Your task to perform on an android device: make emails show in primary in the gmail app Image 0: 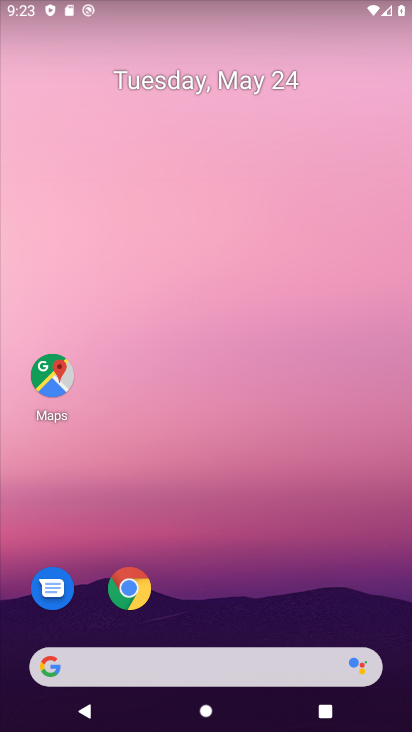
Step 0: drag from (251, 601) to (243, 176)
Your task to perform on an android device: make emails show in primary in the gmail app Image 1: 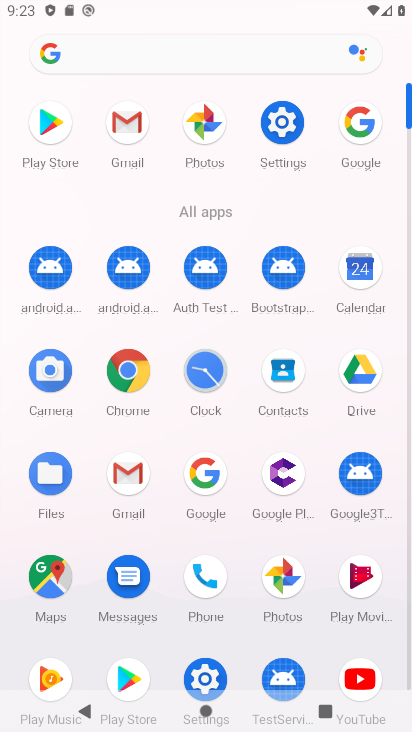
Step 1: click (118, 124)
Your task to perform on an android device: make emails show in primary in the gmail app Image 2: 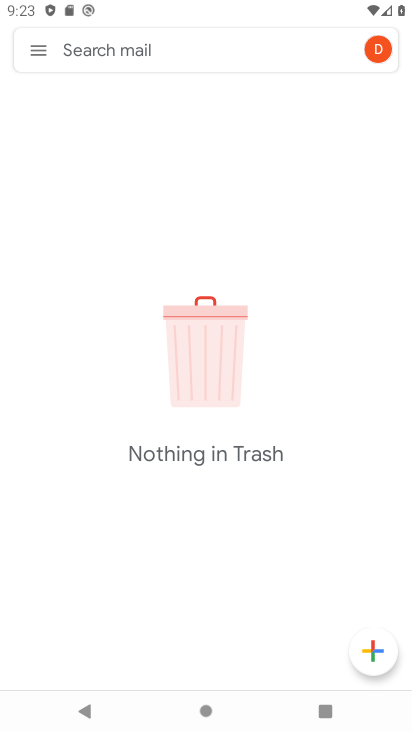
Step 2: click (30, 56)
Your task to perform on an android device: make emails show in primary in the gmail app Image 3: 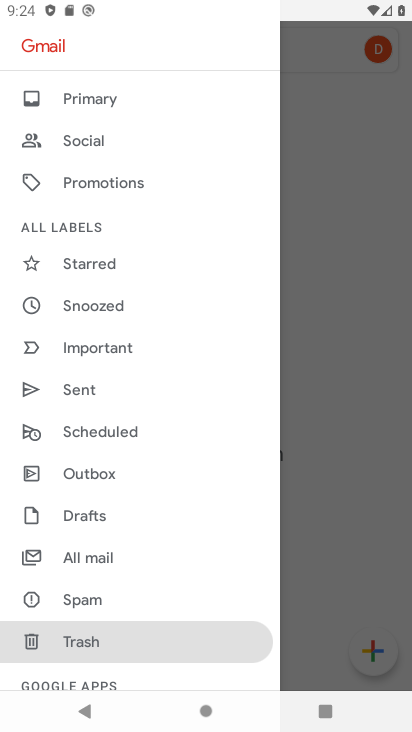
Step 3: drag from (122, 606) to (135, 107)
Your task to perform on an android device: make emails show in primary in the gmail app Image 4: 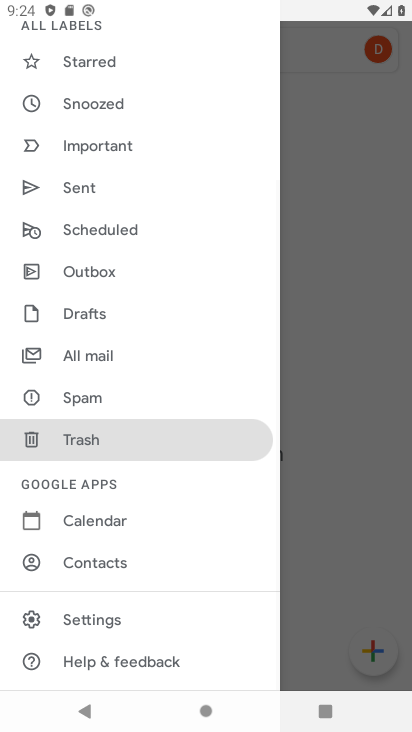
Step 4: click (91, 628)
Your task to perform on an android device: make emails show in primary in the gmail app Image 5: 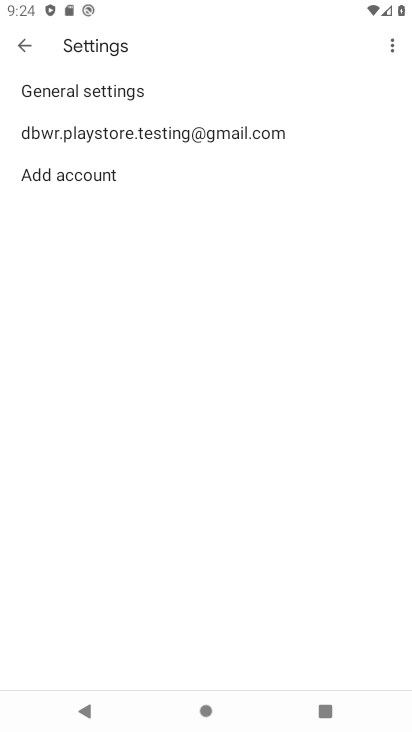
Step 5: click (118, 133)
Your task to perform on an android device: make emails show in primary in the gmail app Image 6: 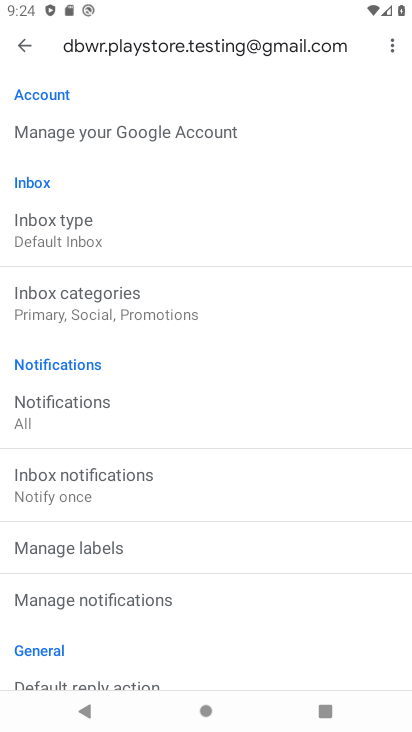
Step 6: click (64, 280)
Your task to perform on an android device: make emails show in primary in the gmail app Image 7: 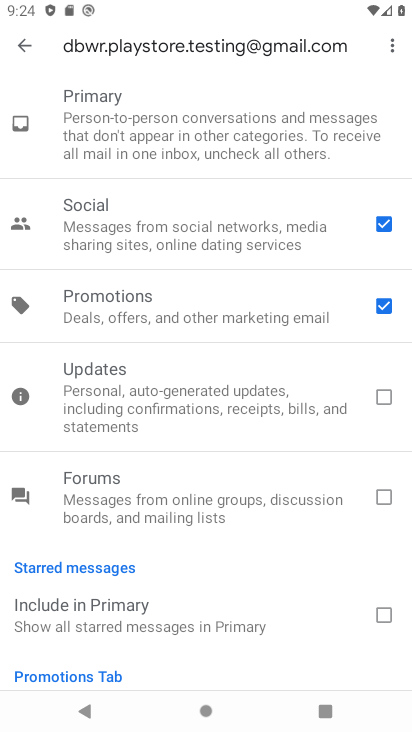
Step 7: click (384, 602)
Your task to perform on an android device: make emails show in primary in the gmail app Image 8: 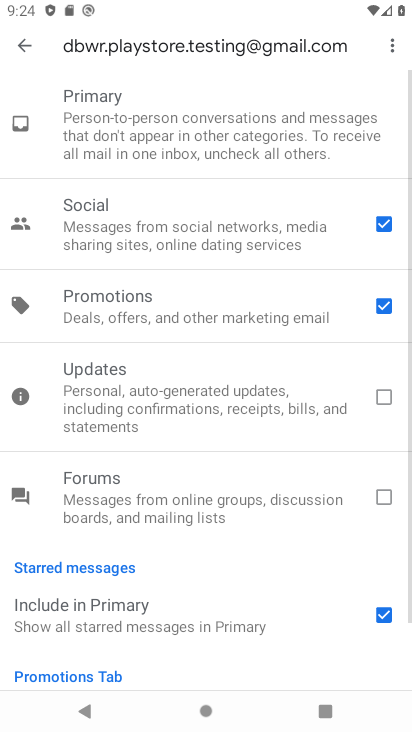
Step 8: click (382, 487)
Your task to perform on an android device: make emails show in primary in the gmail app Image 9: 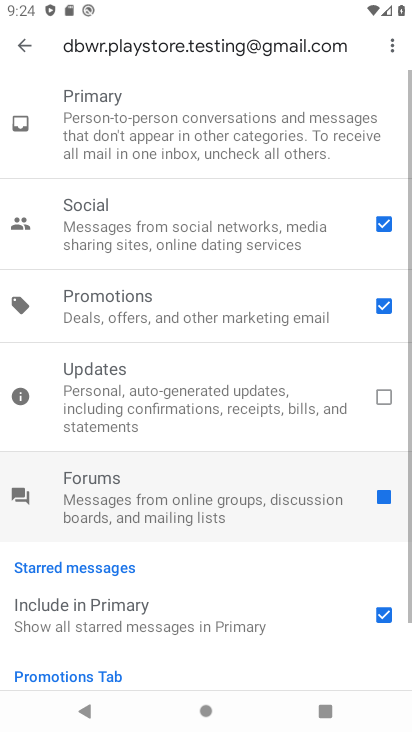
Step 9: click (392, 398)
Your task to perform on an android device: make emails show in primary in the gmail app Image 10: 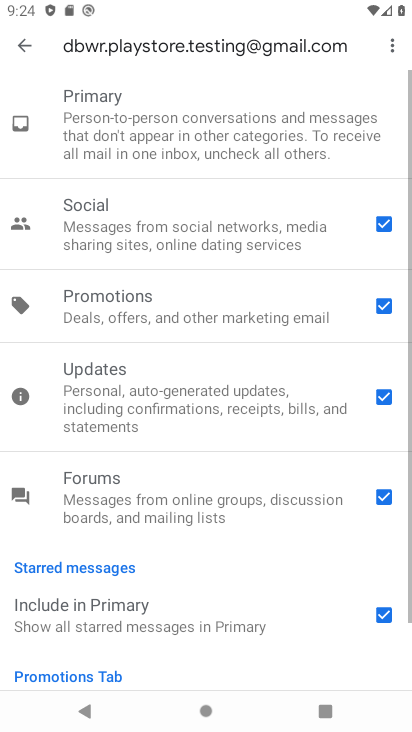
Step 10: task complete